Your task to perform on an android device: set default search engine in the chrome app Image 0: 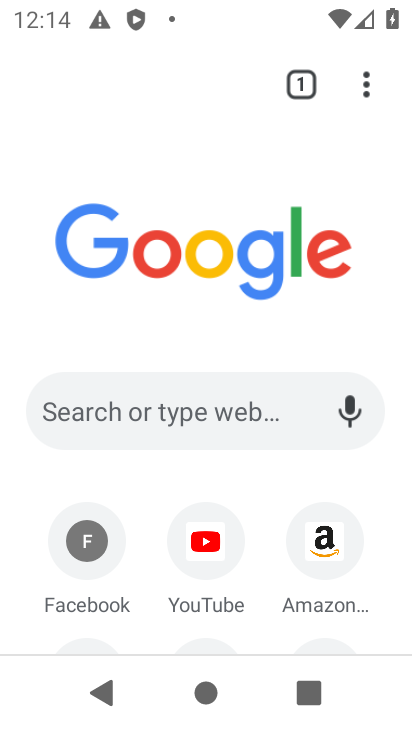
Step 0: click (380, 71)
Your task to perform on an android device: set default search engine in the chrome app Image 1: 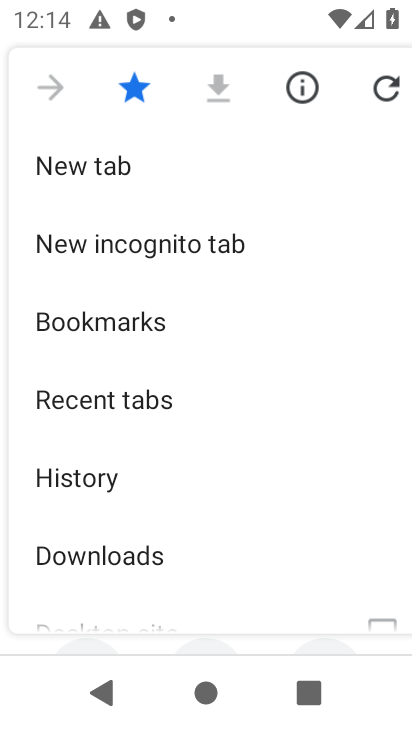
Step 1: drag from (123, 498) to (135, 183)
Your task to perform on an android device: set default search engine in the chrome app Image 2: 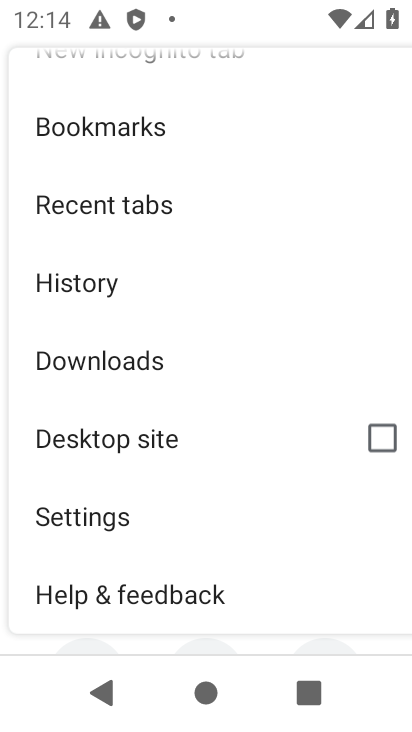
Step 2: click (138, 529)
Your task to perform on an android device: set default search engine in the chrome app Image 3: 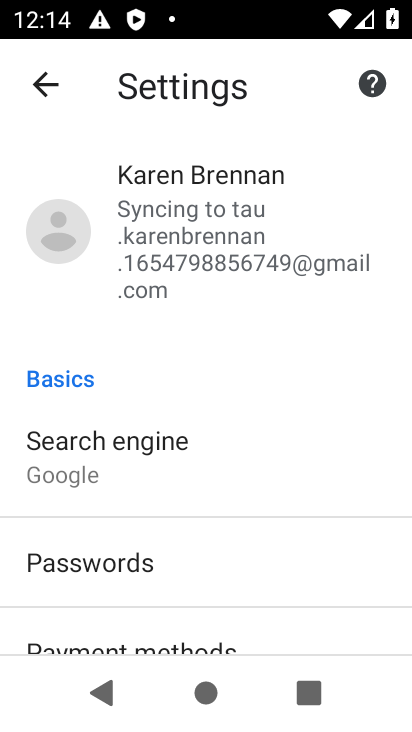
Step 3: click (137, 462)
Your task to perform on an android device: set default search engine in the chrome app Image 4: 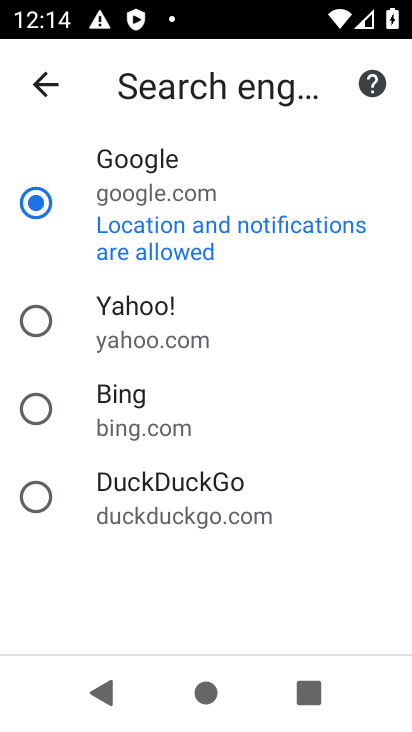
Step 4: click (136, 433)
Your task to perform on an android device: set default search engine in the chrome app Image 5: 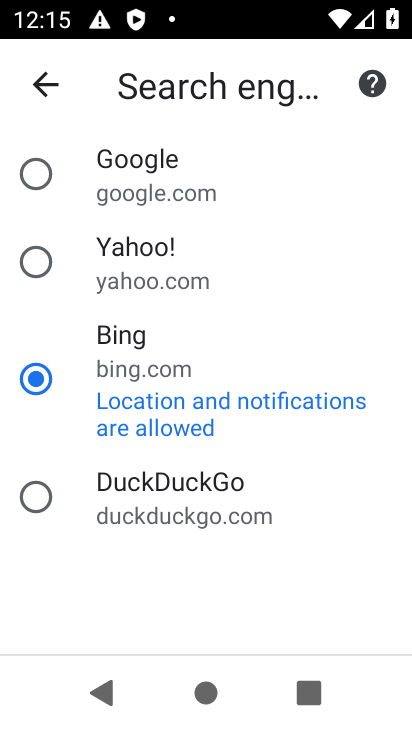
Step 5: task complete